Your task to perform on an android device: change text size in settings app Image 0: 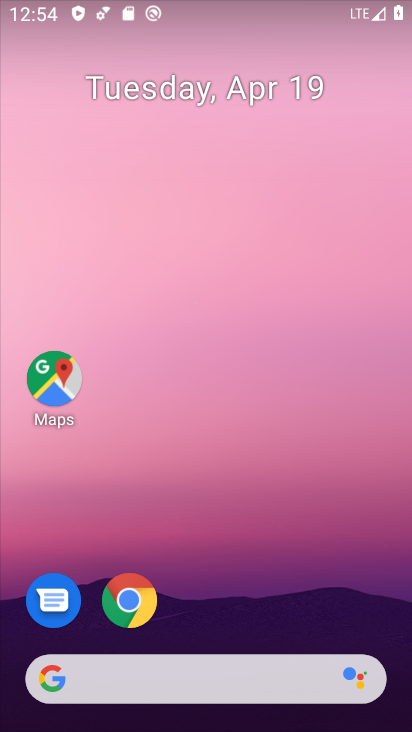
Step 0: drag from (245, 644) to (182, 93)
Your task to perform on an android device: change text size in settings app Image 1: 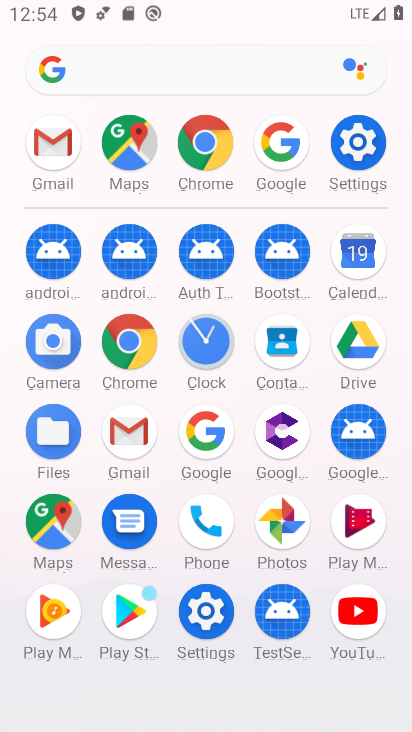
Step 1: click (347, 149)
Your task to perform on an android device: change text size in settings app Image 2: 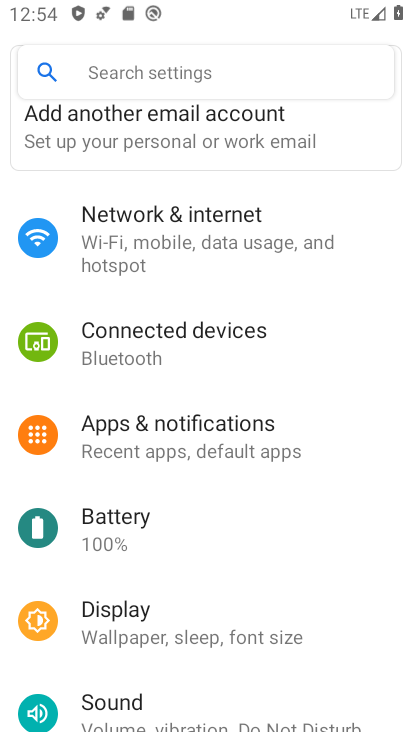
Step 2: drag from (222, 617) to (204, 278)
Your task to perform on an android device: change text size in settings app Image 3: 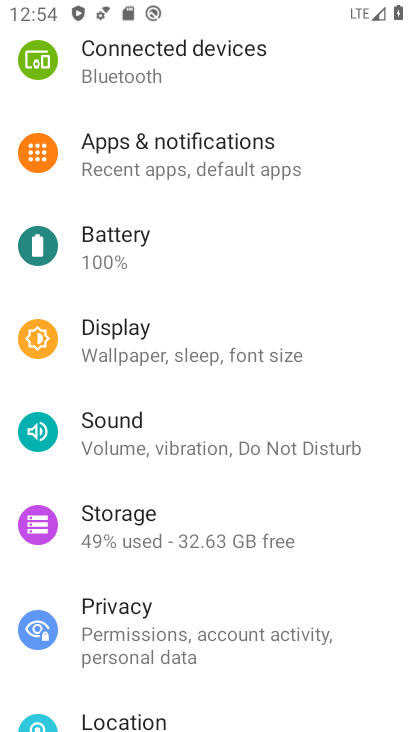
Step 3: click (143, 344)
Your task to perform on an android device: change text size in settings app Image 4: 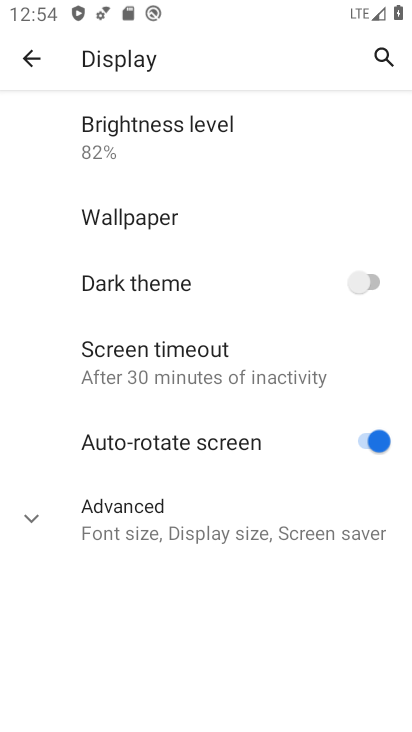
Step 4: click (146, 513)
Your task to perform on an android device: change text size in settings app Image 5: 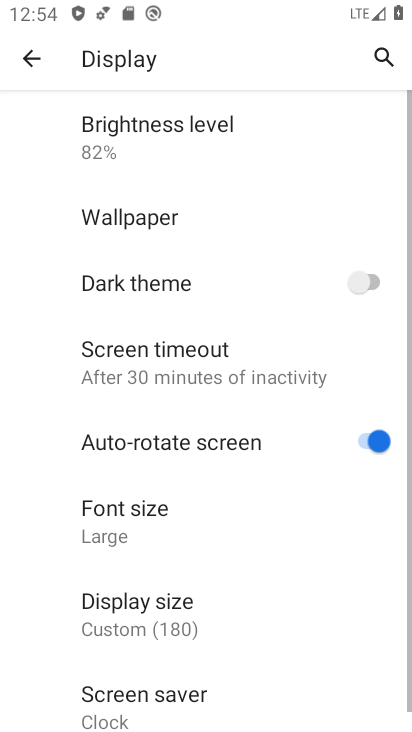
Step 5: click (146, 511)
Your task to perform on an android device: change text size in settings app Image 6: 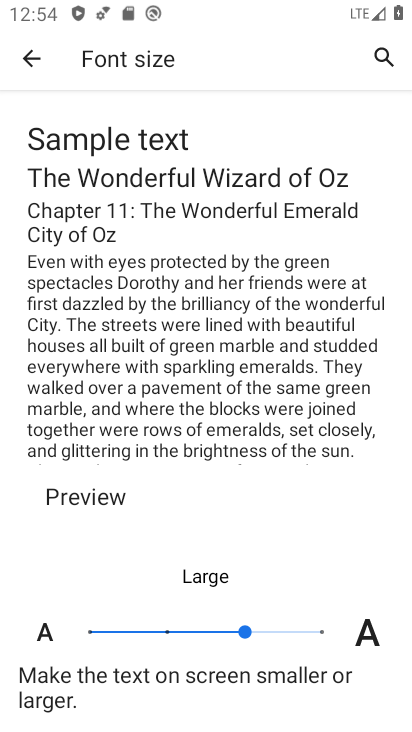
Step 6: click (170, 620)
Your task to perform on an android device: change text size in settings app Image 7: 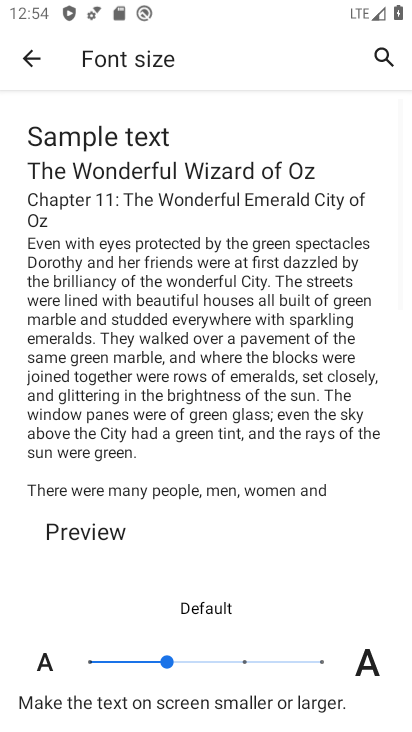
Step 7: task complete